Your task to perform on an android device: clear history in the chrome app Image 0: 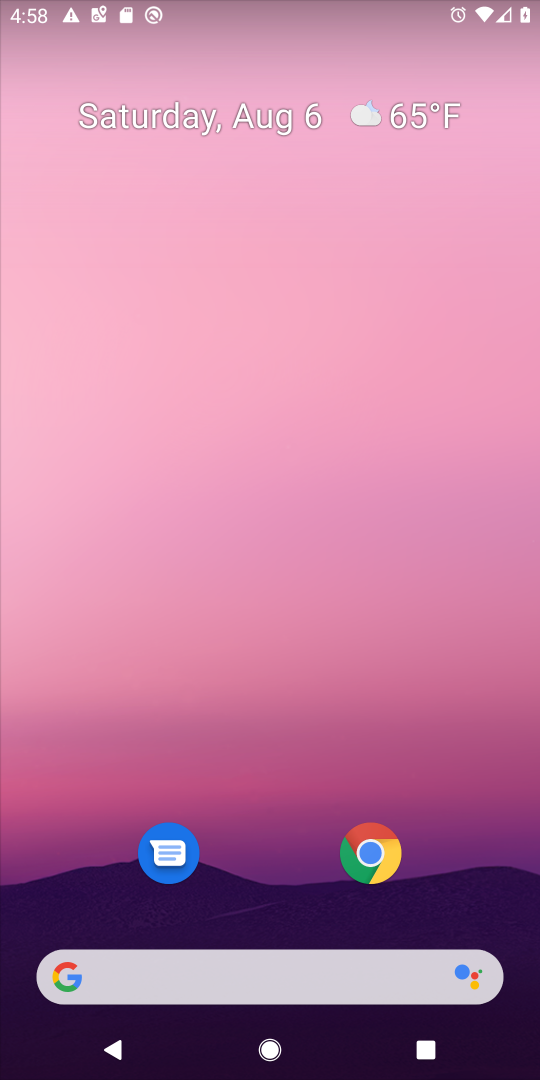
Step 0: click (375, 852)
Your task to perform on an android device: clear history in the chrome app Image 1: 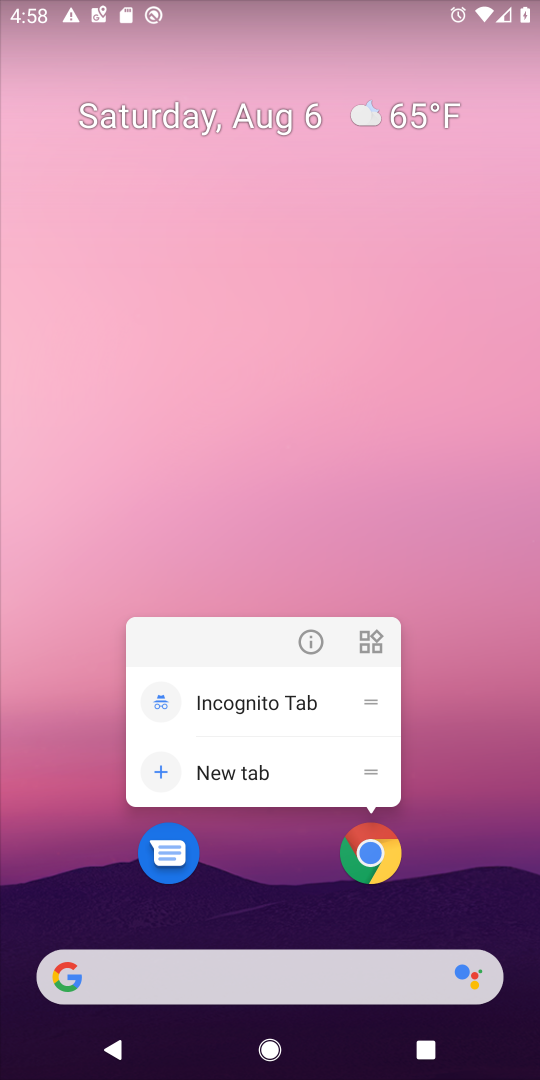
Step 1: click (375, 855)
Your task to perform on an android device: clear history in the chrome app Image 2: 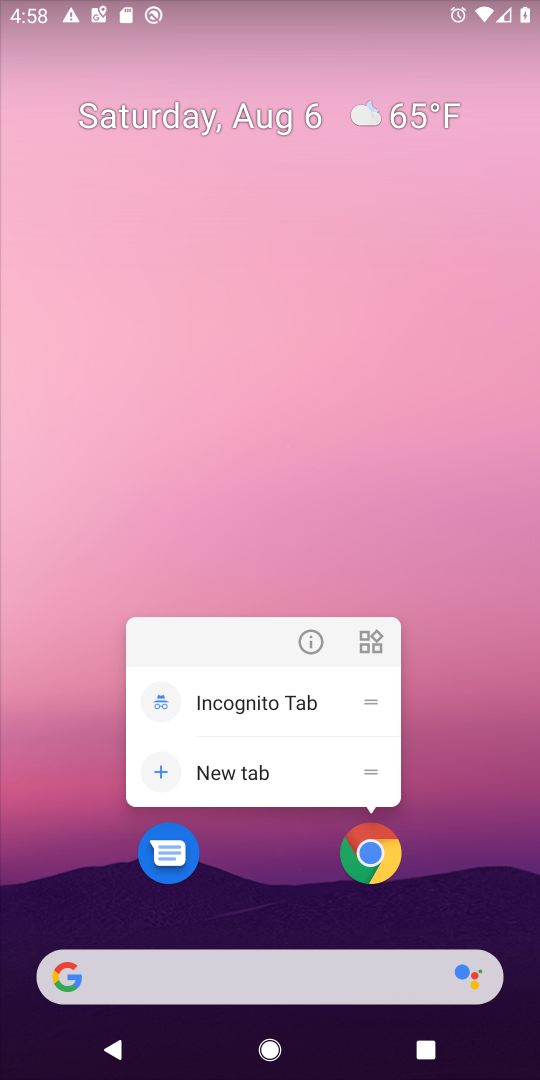
Step 2: click (376, 849)
Your task to perform on an android device: clear history in the chrome app Image 3: 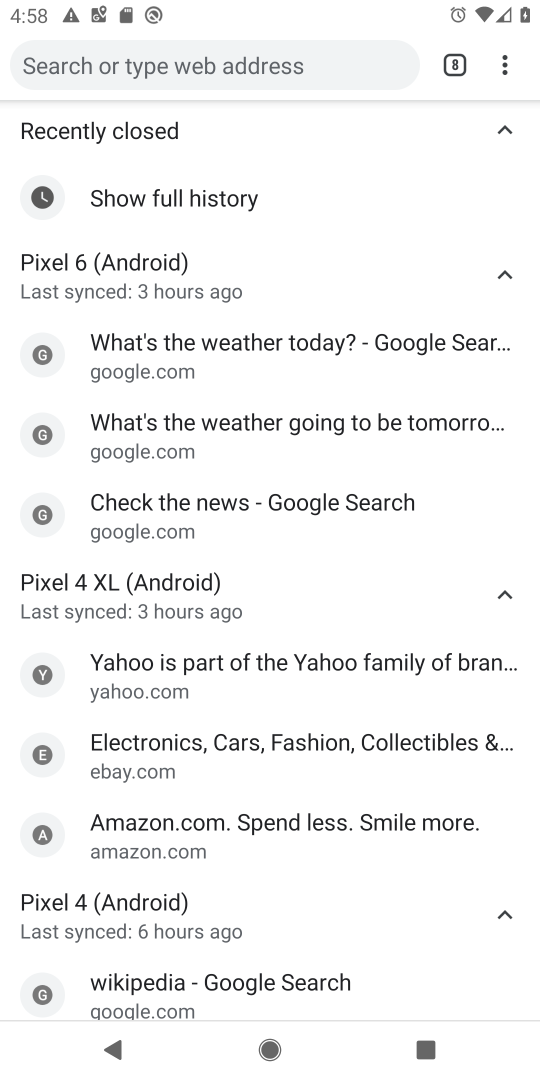
Step 3: task complete